Your task to perform on an android device: Go to Amazon Image 0: 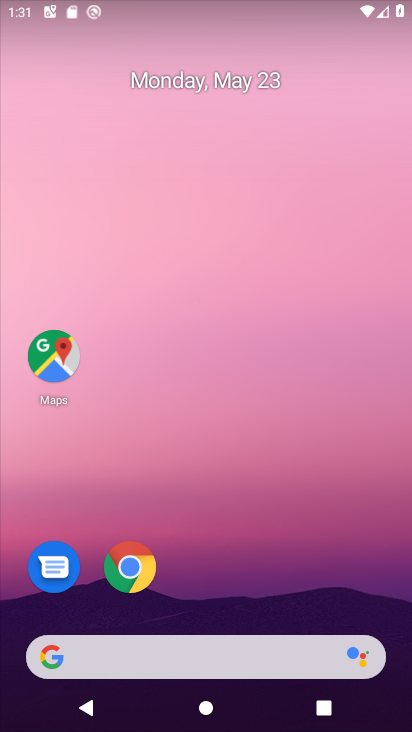
Step 0: drag from (286, 595) to (229, 118)
Your task to perform on an android device: Go to Amazon Image 1: 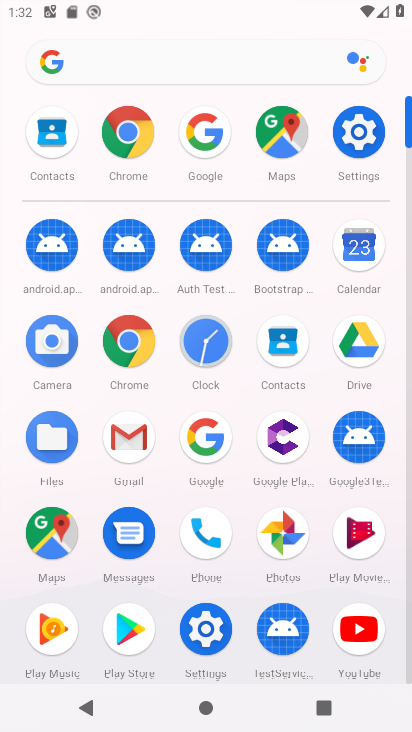
Step 1: click (137, 347)
Your task to perform on an android device: Go to Amazon Image 2: 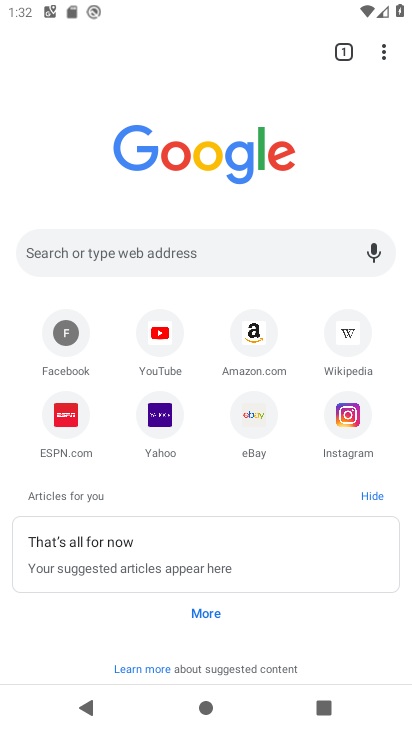
Step 2: click (260, 332)
Your task to perform on an android device: Go to Amazon Image 3: 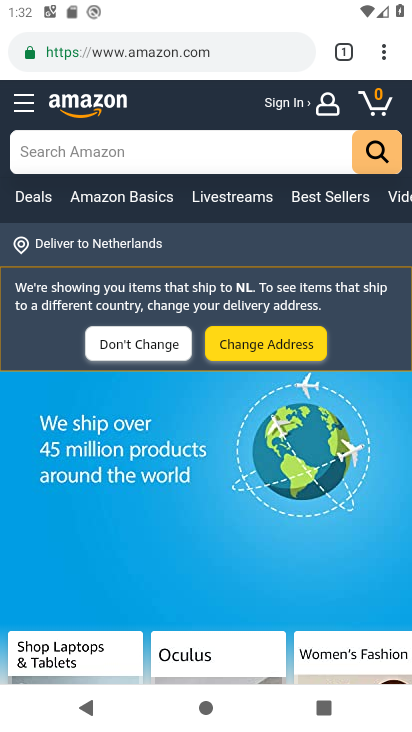
Step 3: task complete